Your task to perform on an android device: Open the map Image 0: 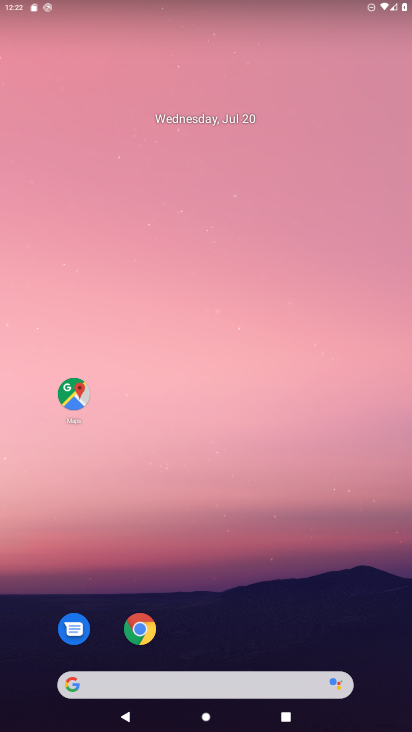
Step 0: click (68, 407)
Your task to perform on an android device: Open the map Image 1: 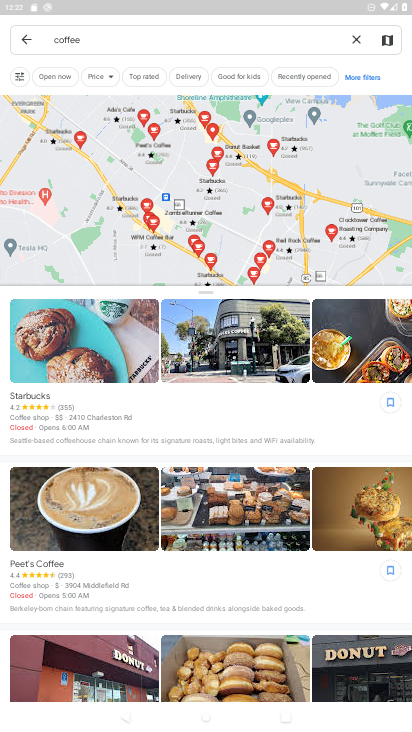
Step 1: task complete